Your task to perform on an android device: toggle priority inbox in the gmail app Image 0: 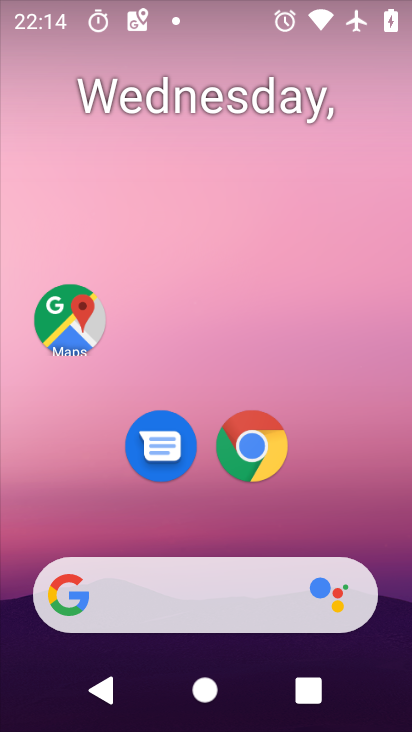
Step 0: press home button
Your task to perform on an android device: toggle priority inbox in the gmail app Image 1: 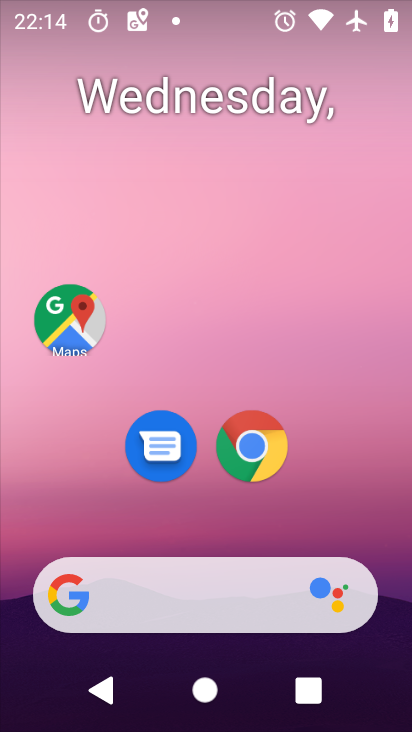
Step 1: drag from (198, 610) to (327, 103)
Your task to perform on an android device: toggle priority inbox in the gmail app Image 2: 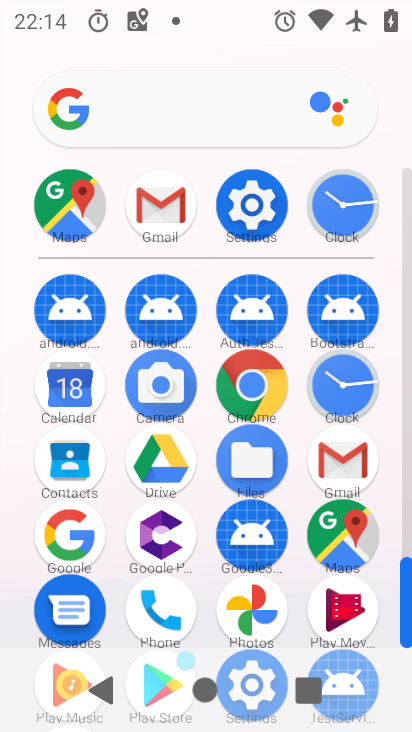
Step 2: click (145, 230)
Your task to perform on an android device: toggle priority inbox in the gmail app Image 3: 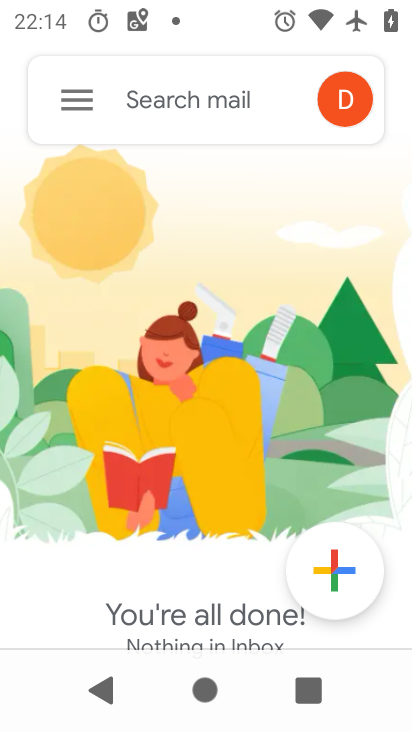
Step 3: click (75, 94)
Your task to perform on an android device: toggle priority inbox in the gmail app Image 4: 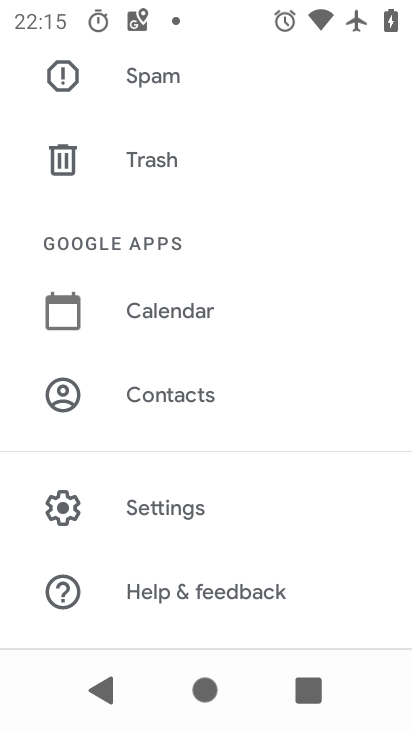
Step 4: click (145, 506)
Your task to perform on an android device: toggle priority inbox in the gmail app Image 5: 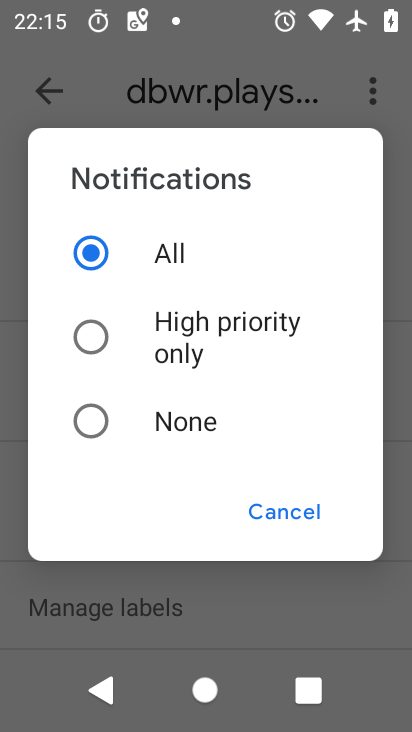
Step 5: click (320, 528)
Your task to perform on an android device: toggle priority inbox in the gmail app Image 6: 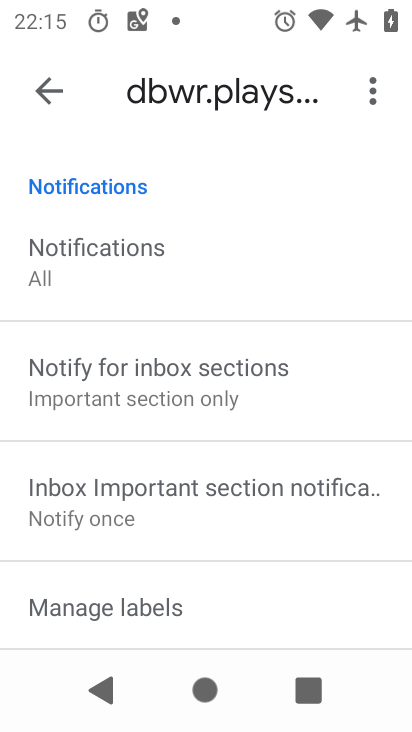
Step 6: drag from (256, 189) to (169, 552)
Your task to perform on an android device: toggle priority inbox in the gmail app Image 7: 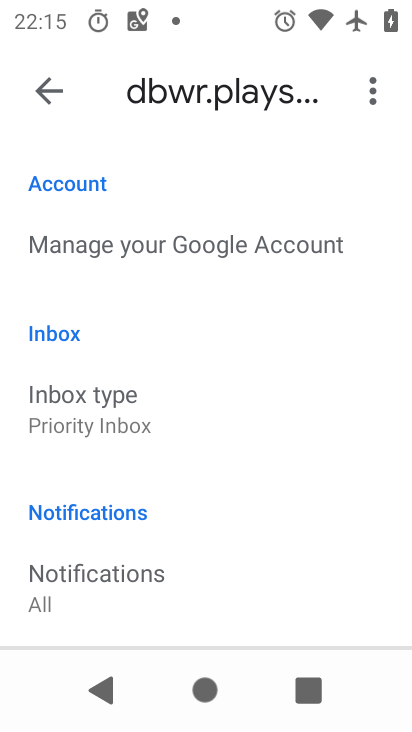
Step 7: click (84, 385)
Your task to perform on an android device: toggle priority inbox in the gmail app Image 8: 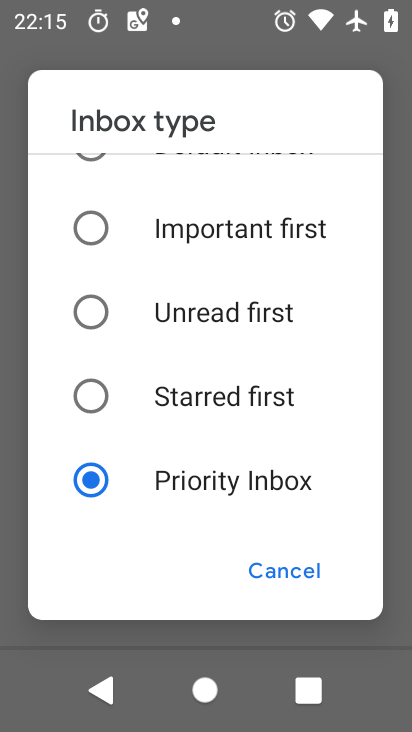
Step 8: drag from (233, 225) to (191, 500)
Your task to perform on an android device: toggle priority inbox in the gmail app Image 9: 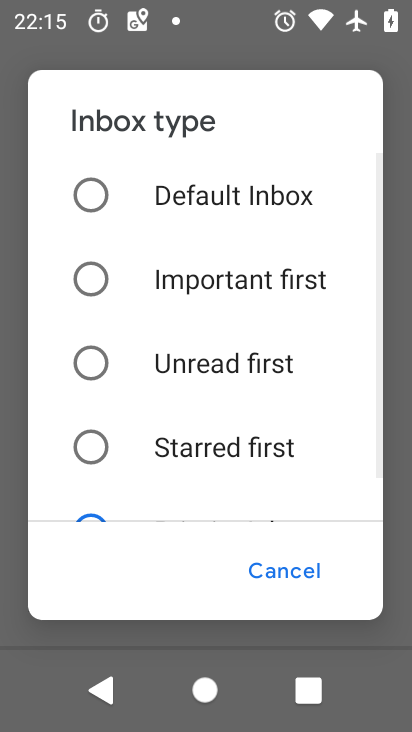
Step 9: click (88, 198)
Your task to perform on an android device: toggle priority inbox in the gmail app Image 10: 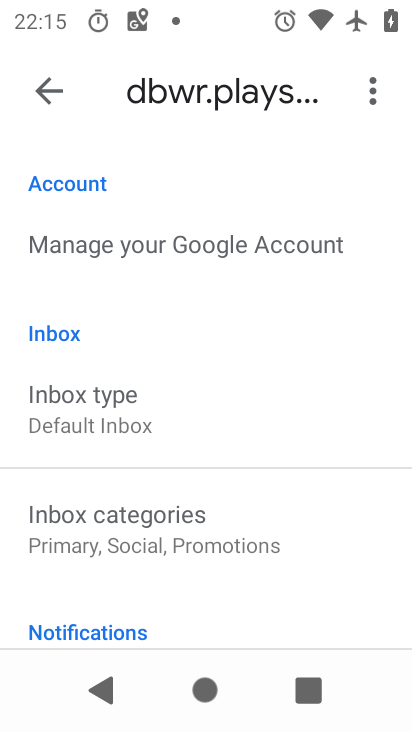
Step 10: task complete